Your task to perform on an android device: What's the news in China? Image 0: 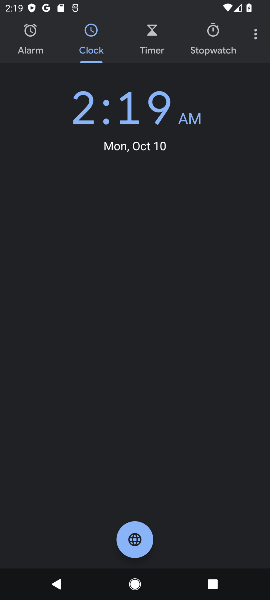
Step 0: press home button
Your task to perform on an android device: What's the news in China? Image 1: 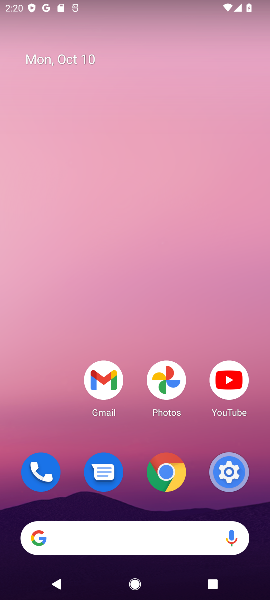
Step 1: click (140, 534)
Your task to perform on an android device: What's the news in China? Image 2: 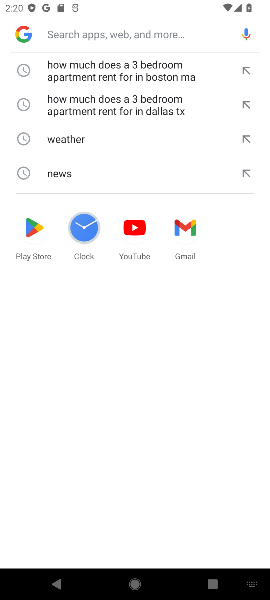
Step 2: type "What's the news in China"
Your task to perform on an android device: What's the news in China? Image 3: 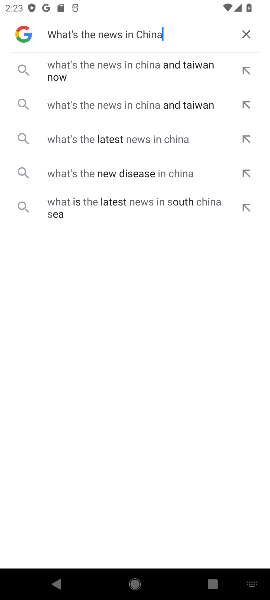
Step 3: click (121, 139)
Your task to perform on an android device: What's the news in China? Image 4: 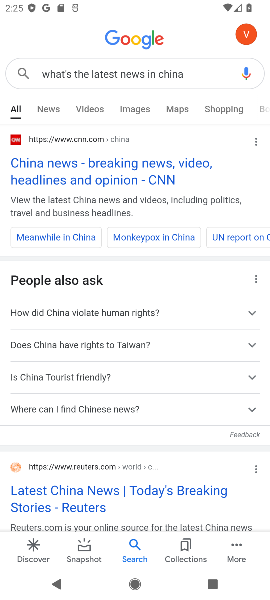
Step 4: task complete